Your task to perform on an android device: Go to Android settings Image 0: 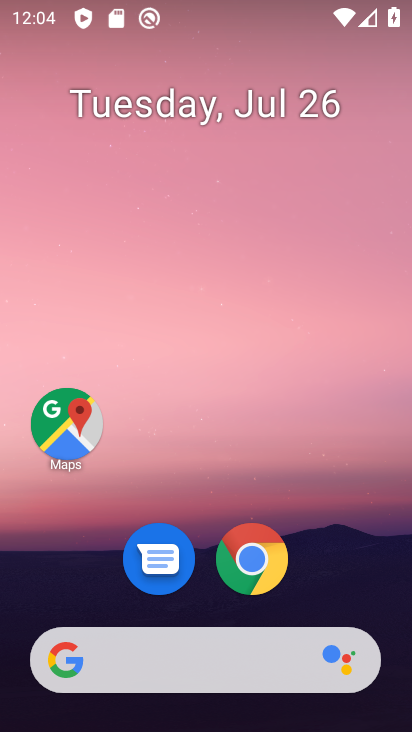
Step 0: drag from (203, 603) to (274, 84)
Your task to perform on an android device: Go to Android settings Image 1: 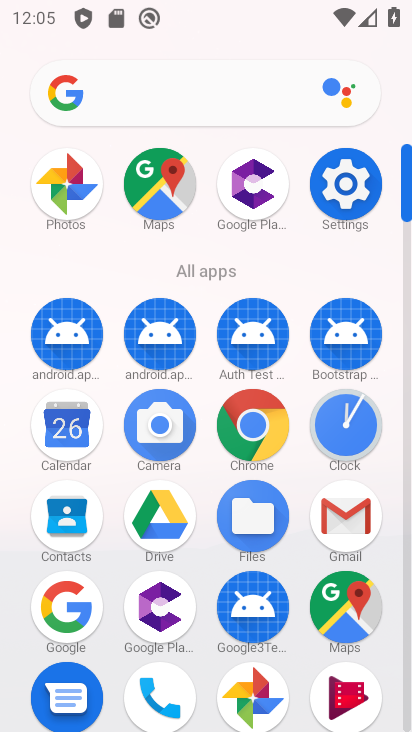
Step 1: click (351, 192)
Your task to perform on an android device: Go to Android settings Image 2: 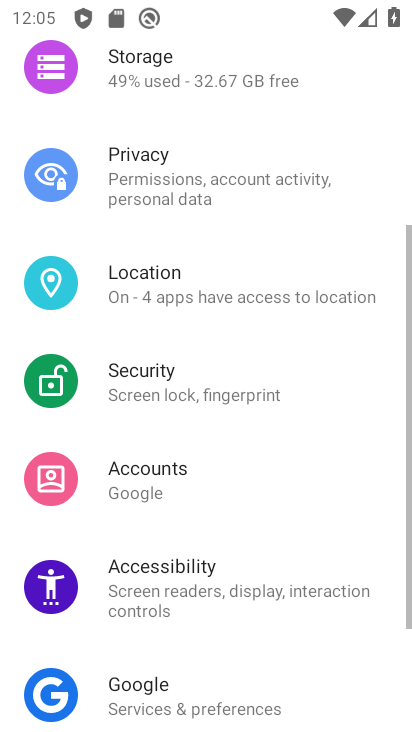
Step 2: drag from (139, 632) to (264, 44)
Your task to perform on an android device: Go to Android settings Image 3: 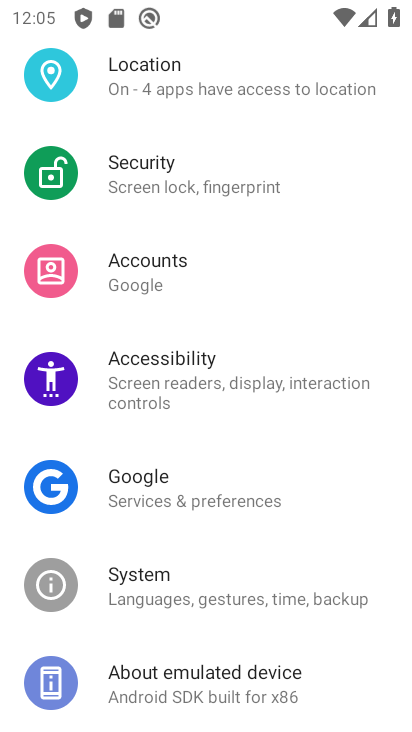
Step 3: drag from (146, 622) to (315, 29)
Your task to perform on an android device: Go to Android settings Image 4: 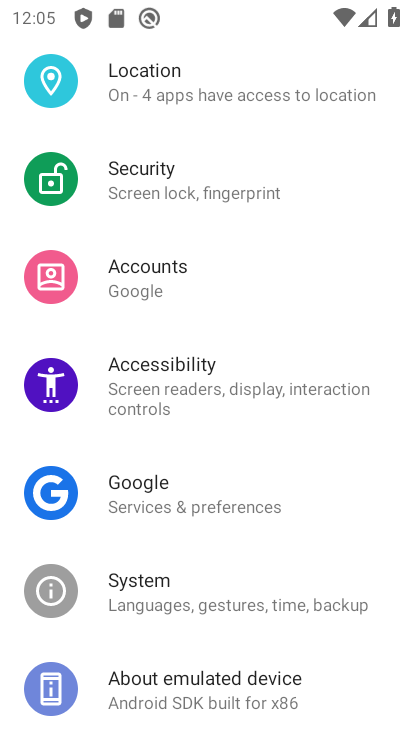
Step 4: click (160, 687)
Your task to perform on an android device: Go to Android settings Image 5: 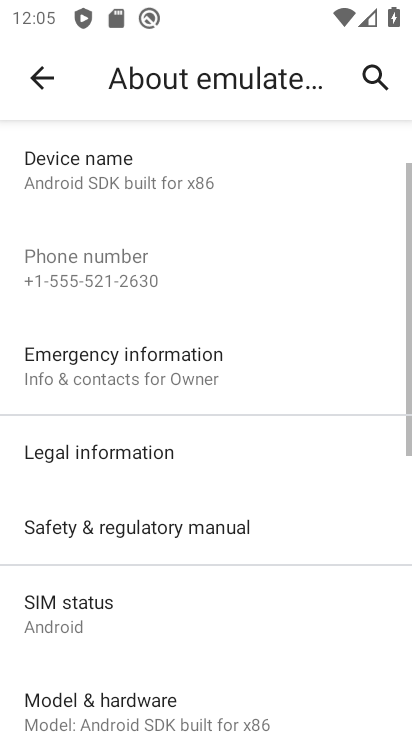
Step 5: task complete